Your task to perform on an android device: Show me popular videos on Youtube Image 0: 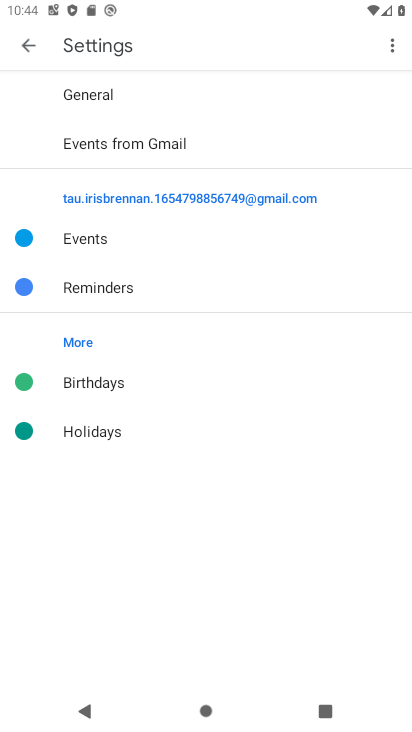
Step 0: press home button
Your task to perform on an android device: Show me popular videos on Youtube Image 1: 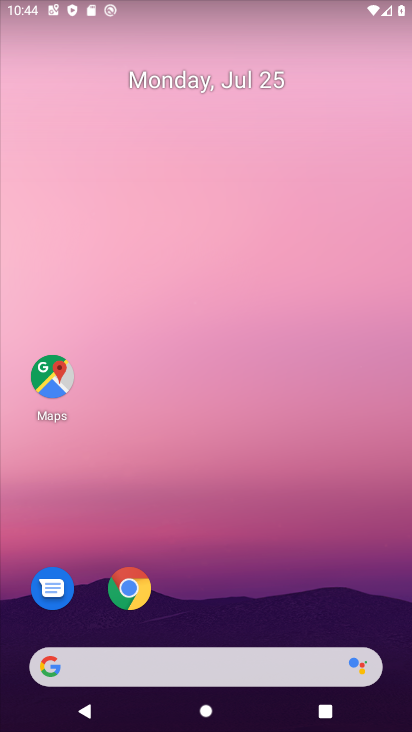
Step 1: drag from (286, 620) to (305, 13)
Your task to perform on an android device: Show me popular videos on Youtube Image 2: 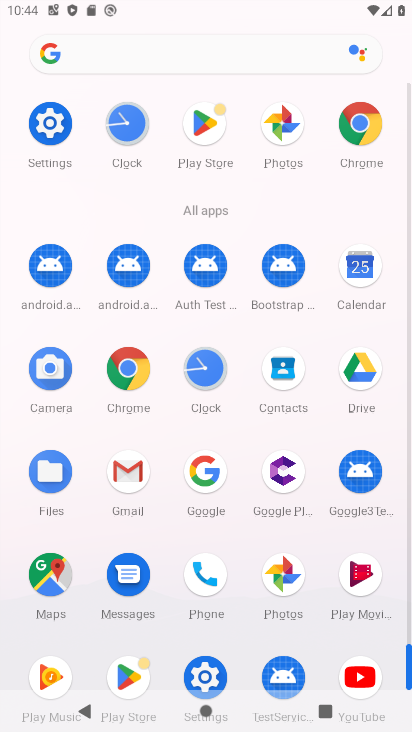
Step 2: click (363, 667)
Your task to perform on an android device: Show me popular videos on Youtube Image 3: 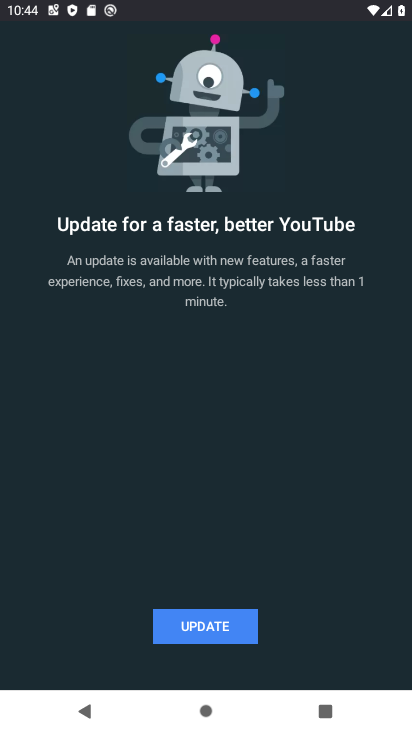
Step 3: press back button
Your task to perform on an android device: Show me popular videos on Youtube Image 4: 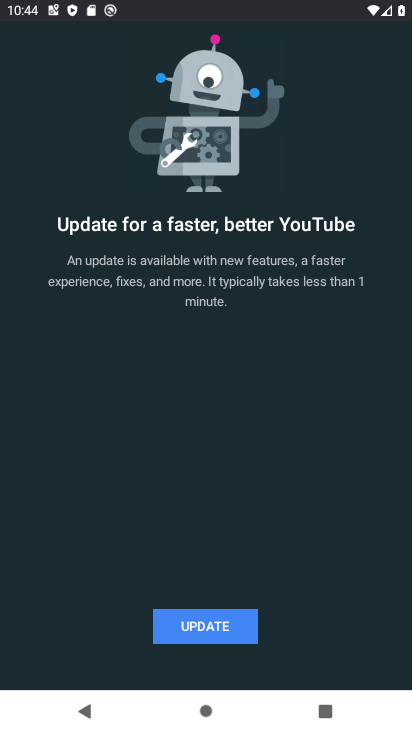
Step 4: press back button
Your task to perform on an android device: Show me popular videos on Youtube Image 5: 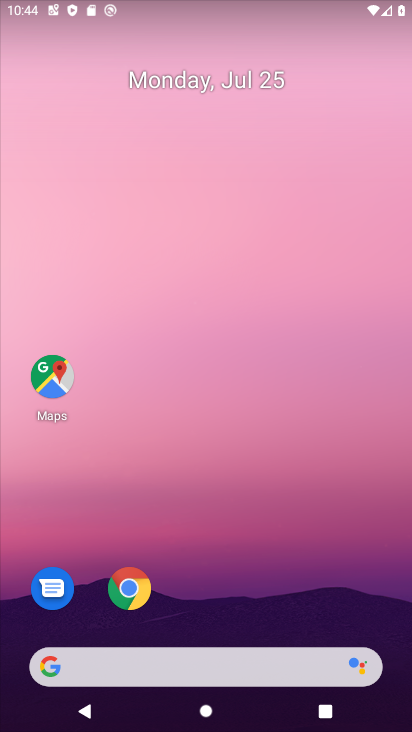
Step 5: drag from (329, 565) to (273, 156)
Your task to perform on an android device: Show me popular videos on Youtube Image 6: 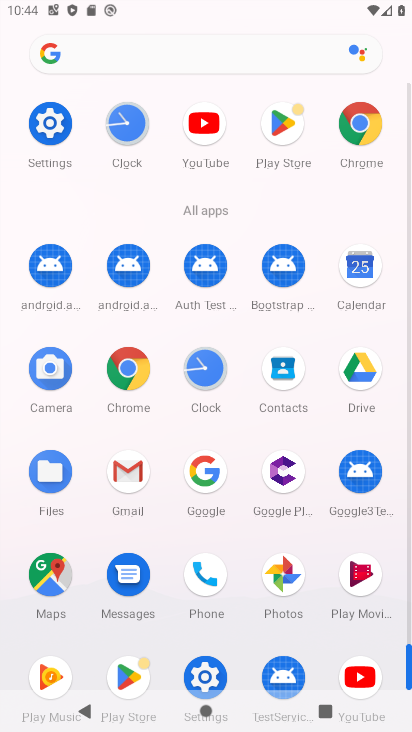
Step 6: click (358, 664)
Your task to perform on an android device: Show me popular videos on Youtube Image 7: 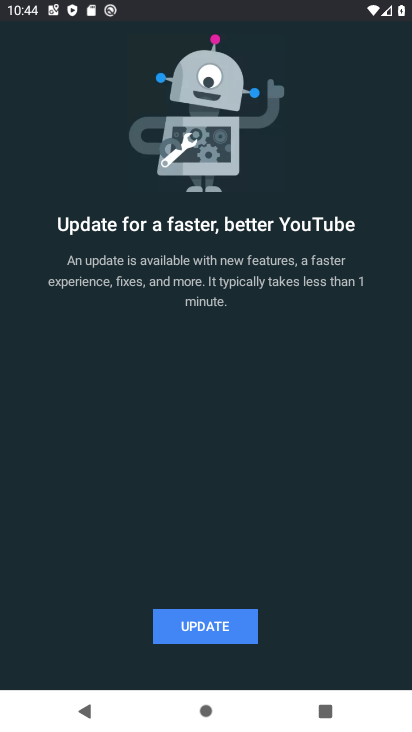
Step 7: click (240, 627)
Your task to perform on an android device: Show me popular videos on Youtube Image 8: 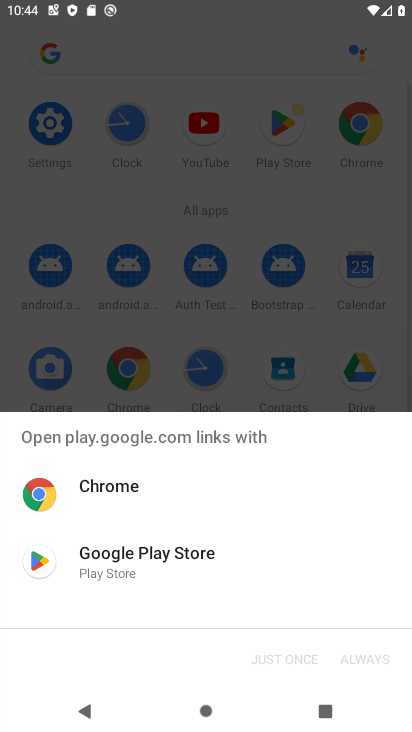
Step 8: task complete